Your task to perform on an android device: Open location settings Image 0: 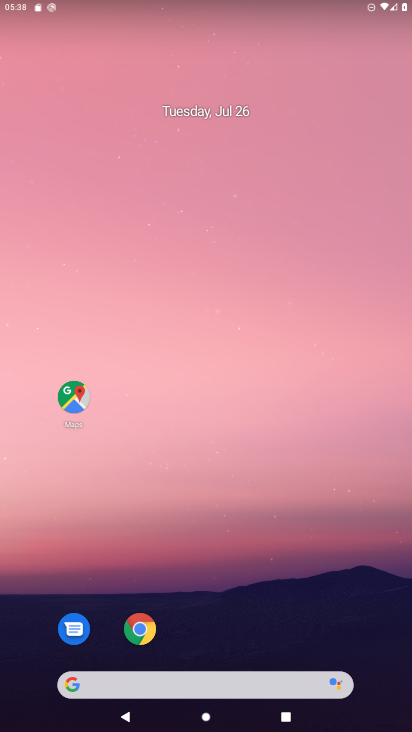
Step 0: drag from (195, 607) to (210, 144)
Your task to perform on an android device: Open location settings Image 1: 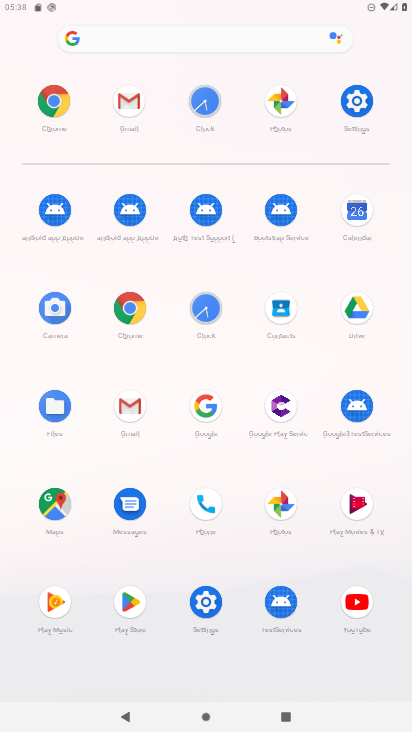
Step 1: click (355, 99)
Your task to perform on an android device: Open location settings Image 2: 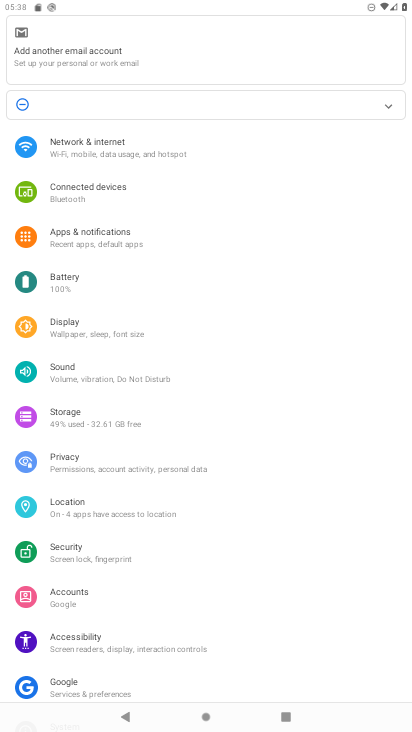
Step 2: click (90, 509)
Your task to perform on an android device: Open location settings Image 3: 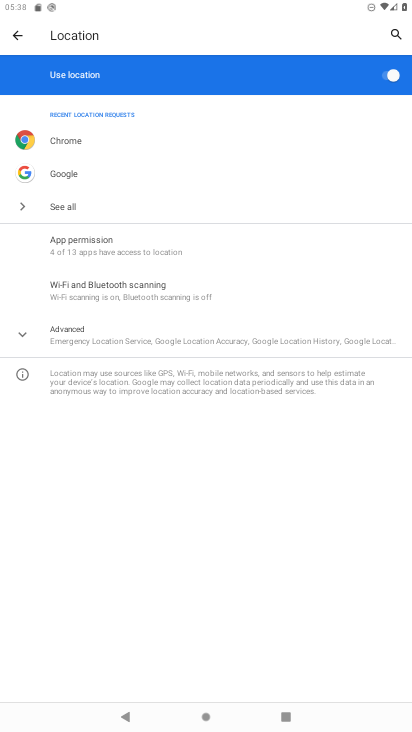
Step 3: task complete